Your task to perform on an android device: Open ESPN.com Image 0: 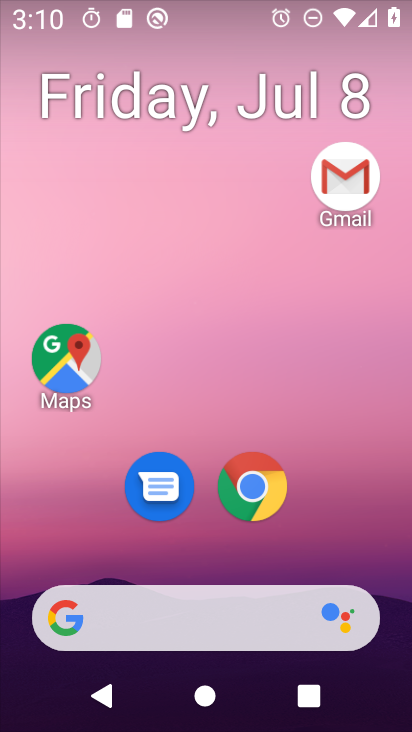
Step 0: drag from (370, 539) to (367, 118)
Your task to perform on an android device: Open ESPN.com Image 1: 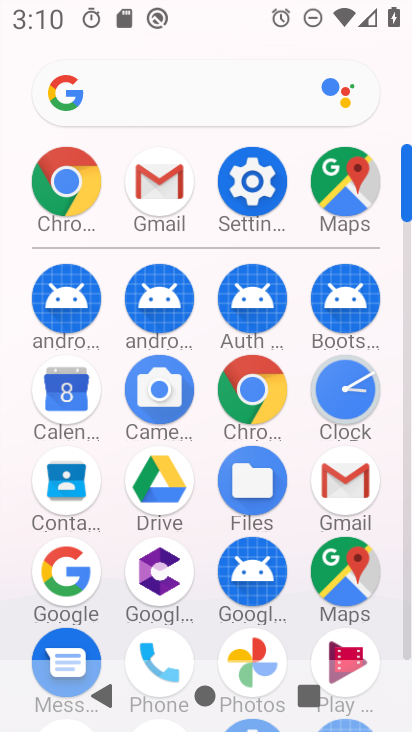
Step 1: click (264, 390)
Your task to perform on an android device: Open ESPN.com Image 2: 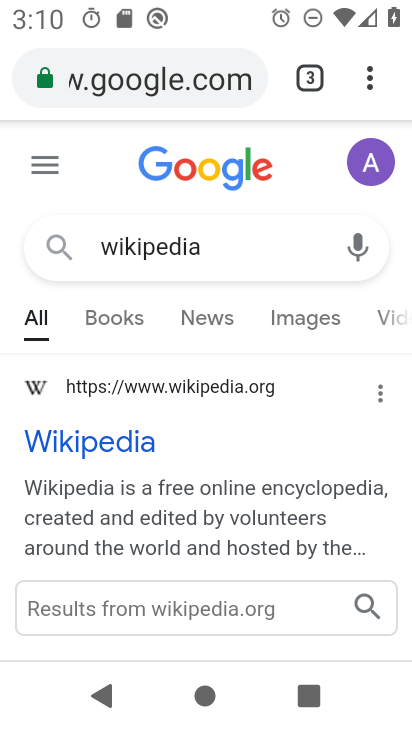
Step 2: click (221, 92)
Your task to perform on an android device: Open ESPN.com Image 3: 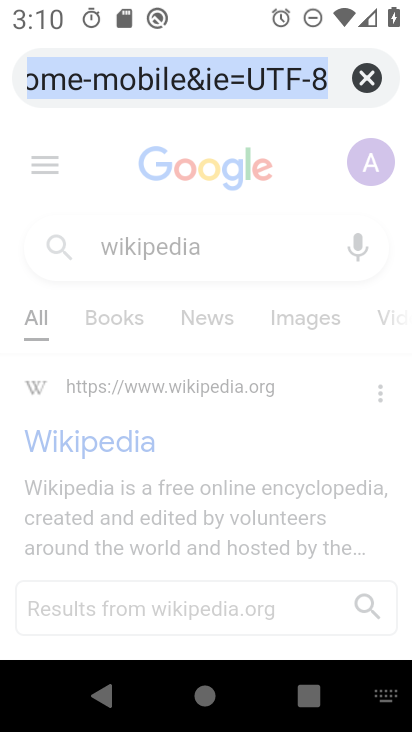
Step 3: type "espn.com"
Your task to perform on an android device: Open ESPN.com Image 4: 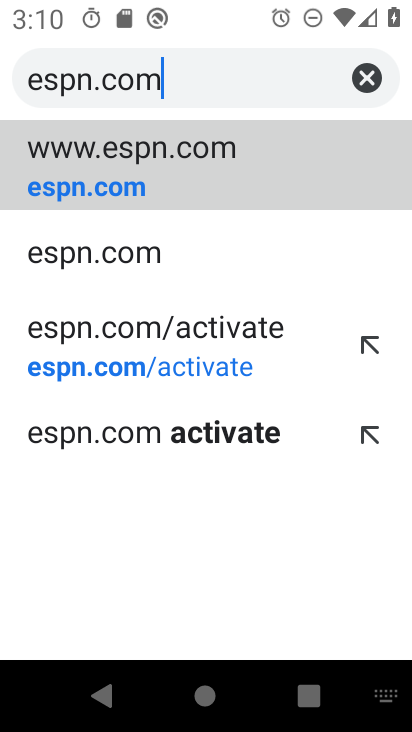
Step 4: click (186, 180)
Your task to perform on an android device: Open ESPN.com Image 5: 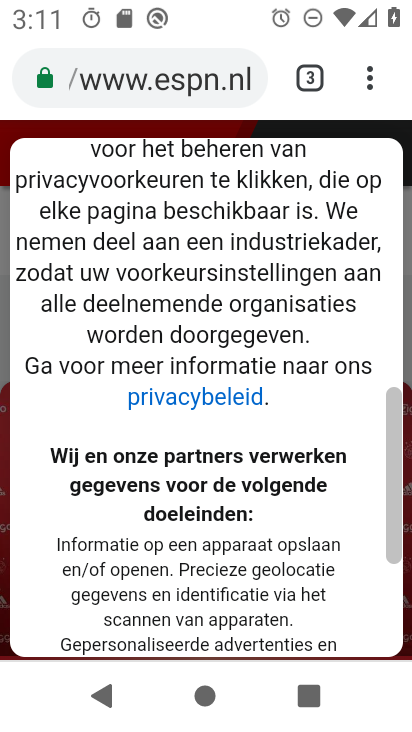
Step 5: task complete